Your task to perform on an android device: toggle notifications settings in the gmail app Image 0: 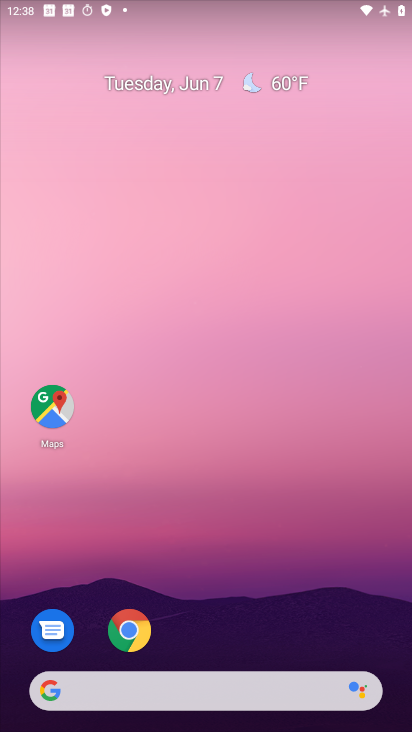
Step 0: drag from (351, 586) to (343, 46)
Your task to perform on an android device: toggle notifications settings in the gmail app Image 1: 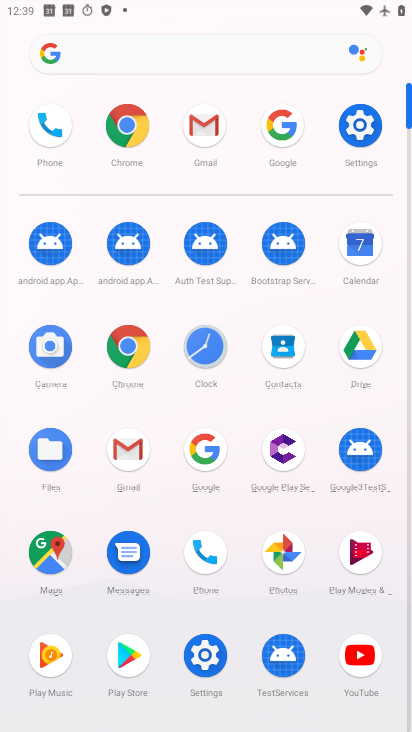
Step 1: click (122, 439)
Your task to perform on an android device: toggle notifications settings in the gmail app Image 2: 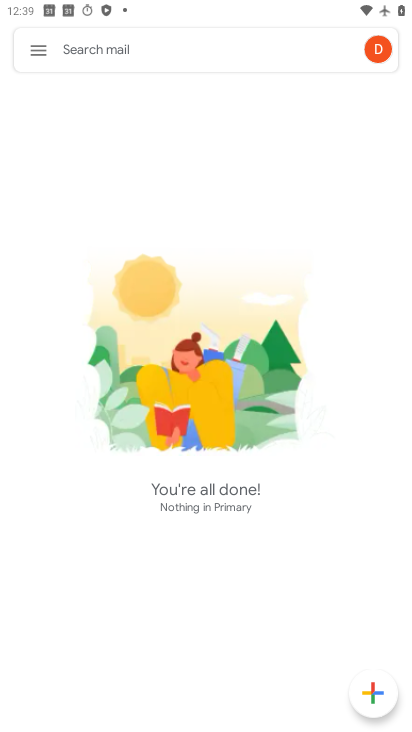
Step 2: click (42, 56)
Your task to perform on an android device: toggle notifications settings in the gmail app Image 3: 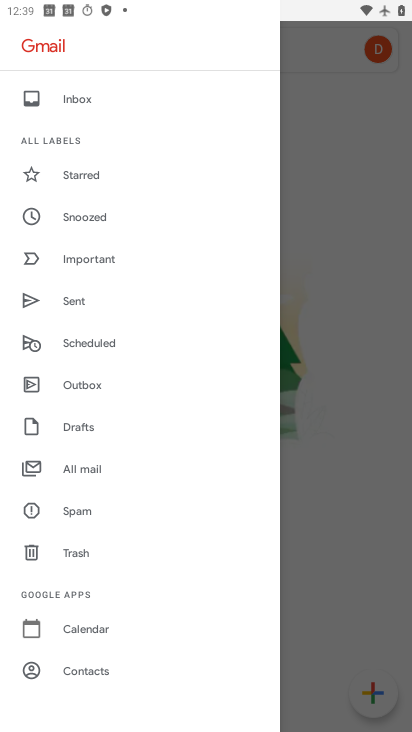
Step 3: drag from (98, 670) to (188, 59)
Your task to perform on an android device: toggle notifications settings in the gmail app Image 4: 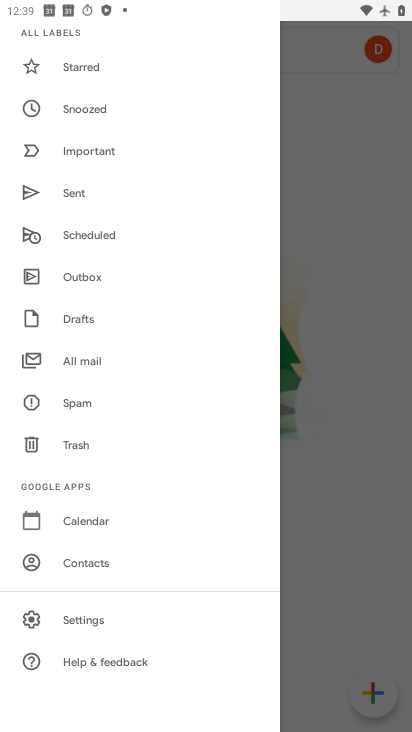
Step 4: click (101, 625)
Your task to perform on an android device: toggle notifications settings in the gmail app Image 5: 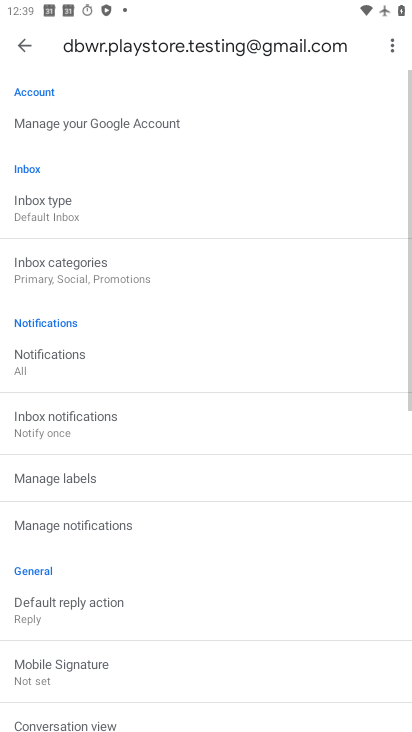
Step 5: click (98, 372)
Your task to perform on an android device: toggle notifications settings in the gmail app Image 6: 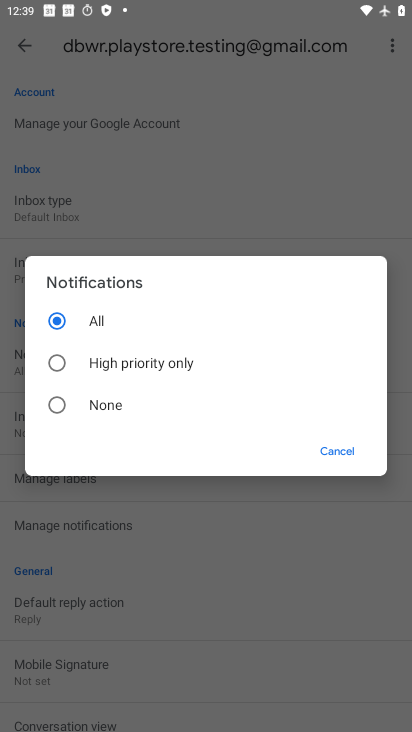
Step 6: click (72, 409)
Your task to perform on an android device: toggle notifications settings in the gmail app Image 7: 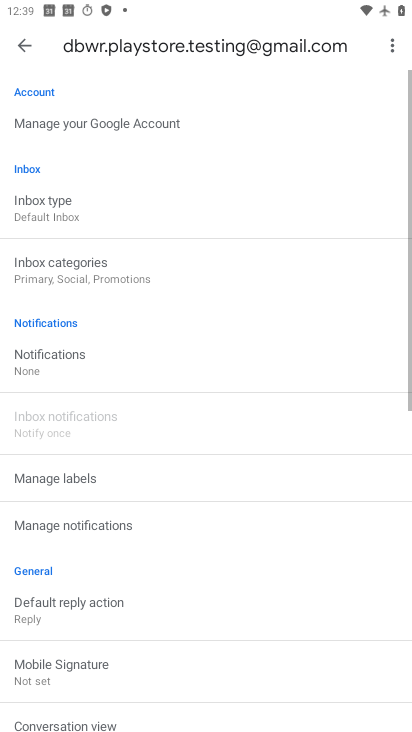
Step 7: task complete